Your task to perform on an android device: move an email to a new category in the gmail app Image 0: 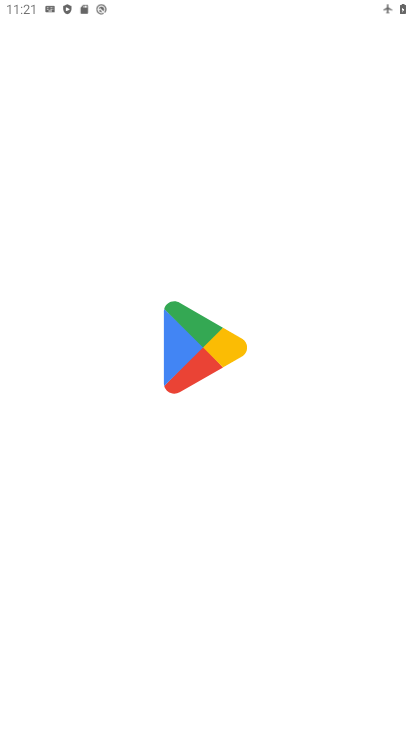
Step 0: drag from (192, 675) to (192, 187)
Your task to perform on an android device: move an email to a new category in the gmail app Image 1: 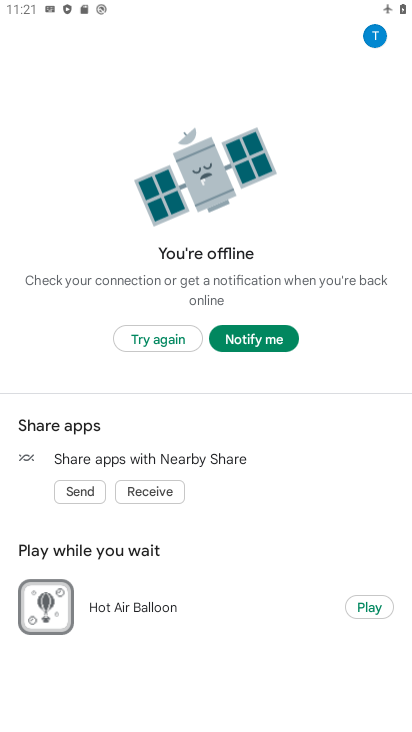
Step 1: press home button
Your task to perform on an android device: move an email to a new category in the gmail app Image 2: 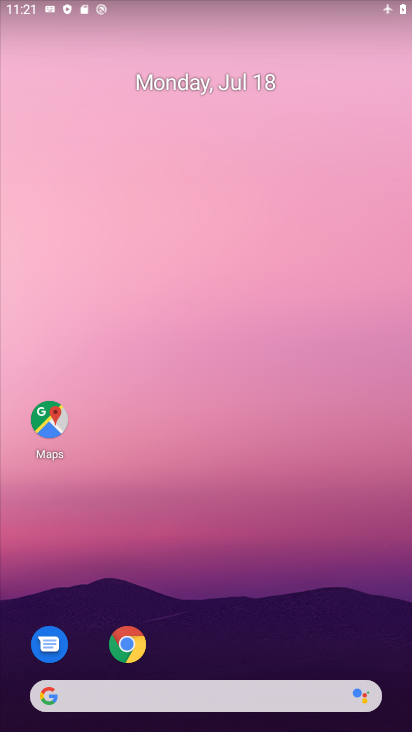
Step 2: drag from (232, 668) to (205, 150)
Your task to perform on an android device: move an email to a new category in the gmail app Image 3: 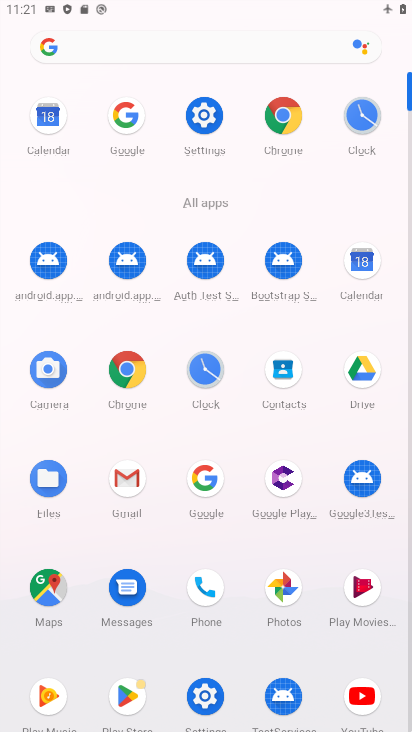
Step 3: click (143, 479)
Your task to perform on an android device: move an email to a new category in the gmail app Image 4: 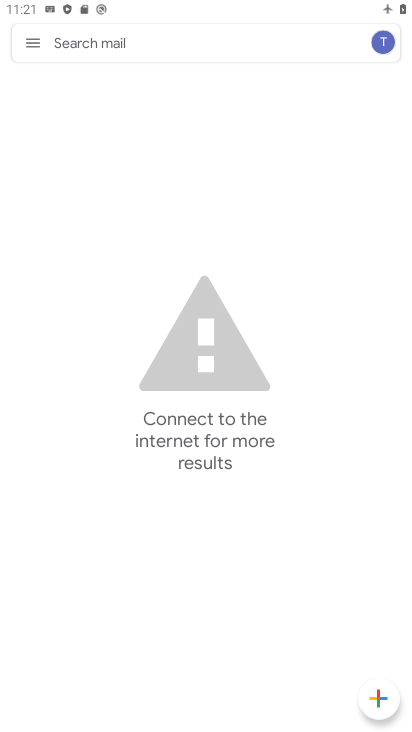
Step 4: click (30, 37)
Your task to perform on an android device: move an email to a new category in the gmail app Image 5: 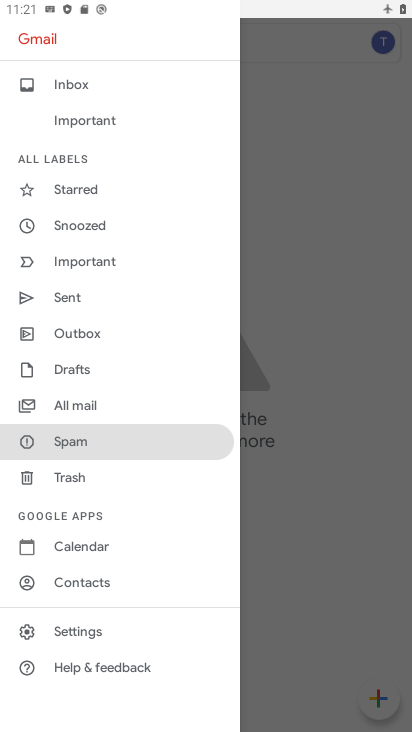
Step 5: click (74, 188)
Your task to perform on an android device: move an email to a new category in the gmail app Image 6: 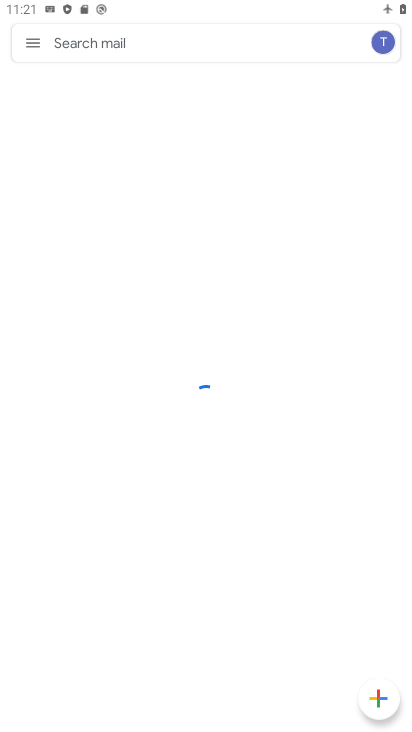
Step 6: task complete